Your task to perform on an android device: Open settings on Google Maps Image 0: 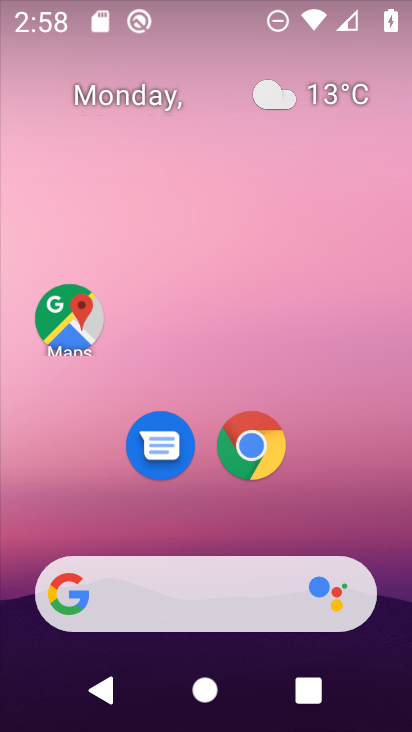
Step 0: drag from (390, 461) to (325, 17)
Your task to perform on an android device: Open settings on Google Maps Image 1: 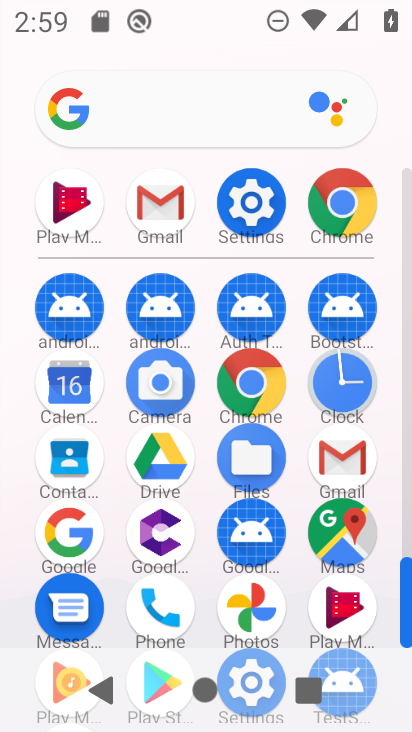
Step 1: click (348, 521)
Your task to perform on an android device: Open settings on Google Maps Image 2: 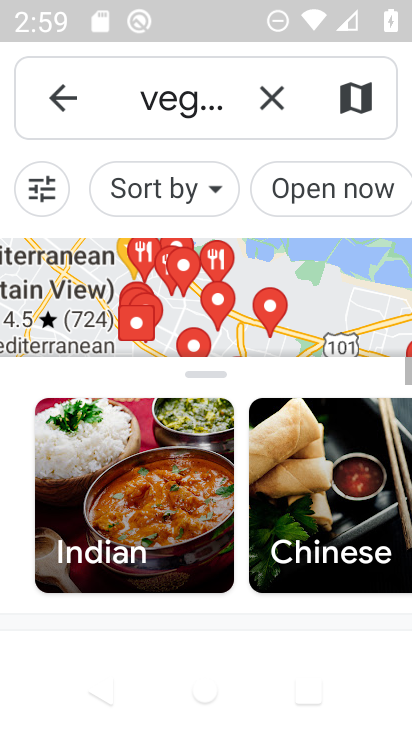
Step 2: click (273, 106)
Your task to perform on an android device: Open settings on Google Maps Image 3: 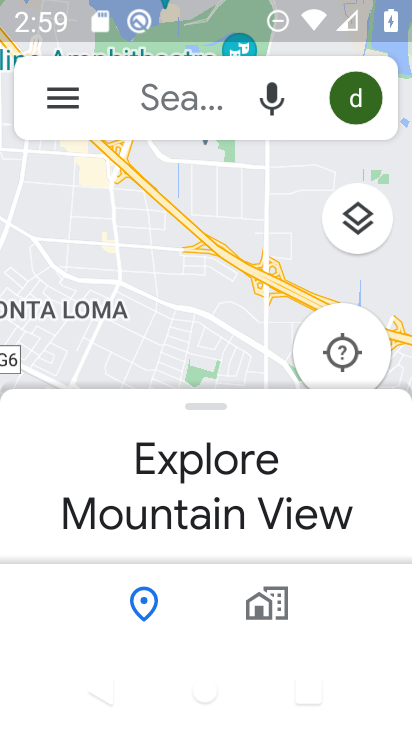
Step 3: task complete